Your task to perform on an android device: check android version Image 0: 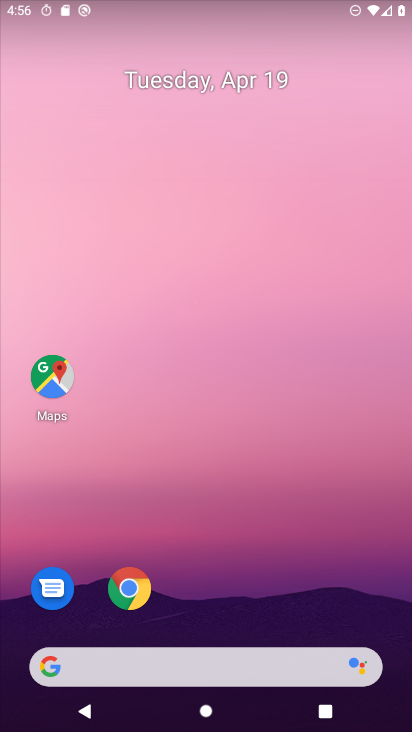
Step 0: drag from (238, 575) to (223, 88)
Your task to perform on an android device: check android version Image 1: 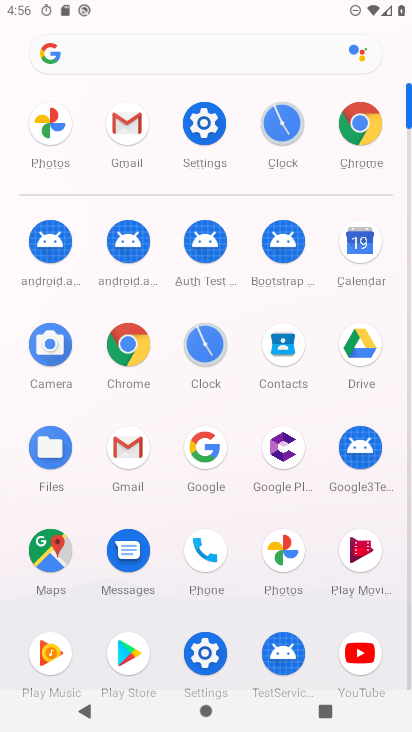
Step 1: click (202, 121)
Your task to perform on an android device: check android version Image 2: 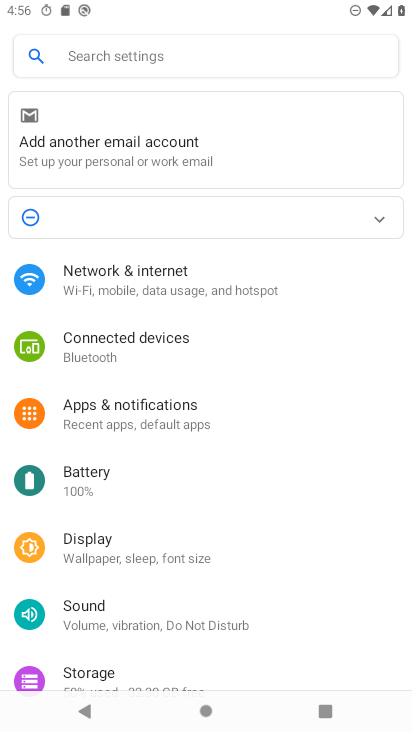
Step 2: drag from (213, 582) to (218, 254)
Your task to perform on an android device: check android version Image 3: 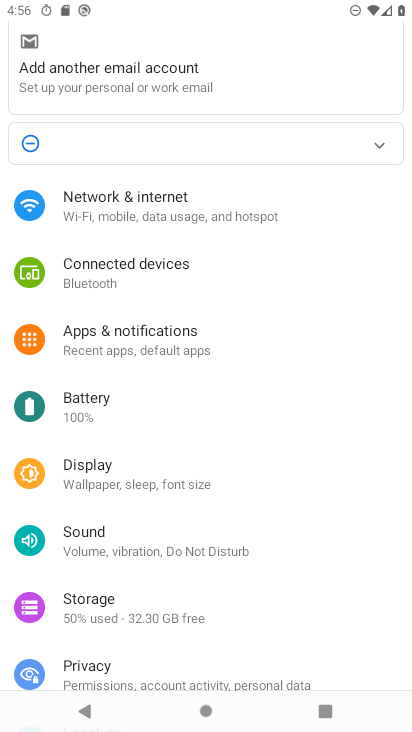
Step 3: drag from (195, 601) to (217, 191)
Your task to perform on an android device: check android version Image 4: 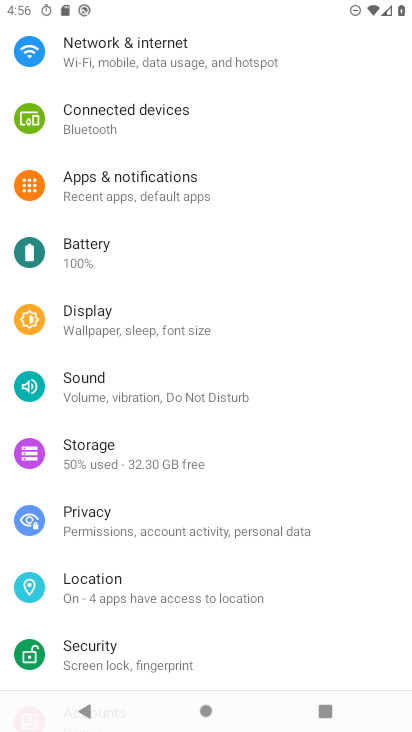
Step 4: drag from (206, 647) to (217, 191)
Your task to perform on an android device: check android version Image 5: 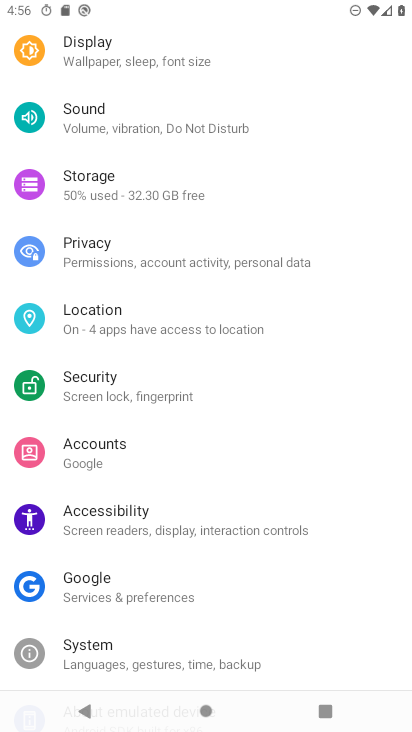
Step 5: drag from (192, 636) to (211, 254)
Your task to perform on an android device: check android version Image 6: 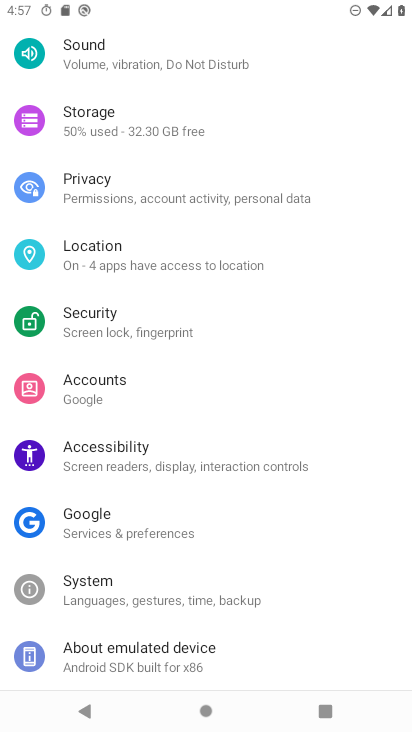
Step 6: click (183, 648)
Your task to perform on an android device: check android version Image 7: 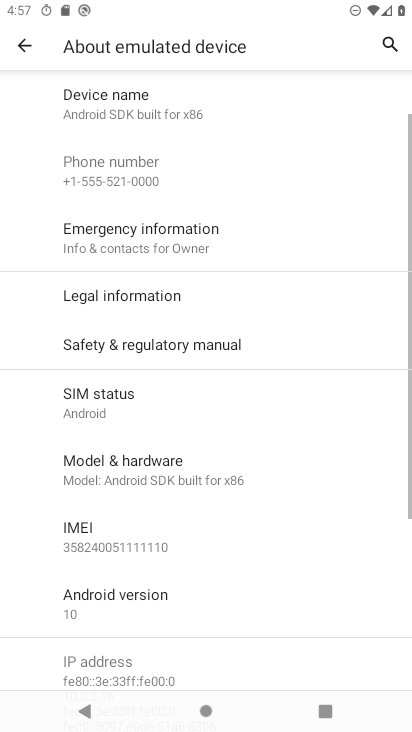
Step 7: click (187, 607)
Your task to perform on an android device: check android version Image 8: 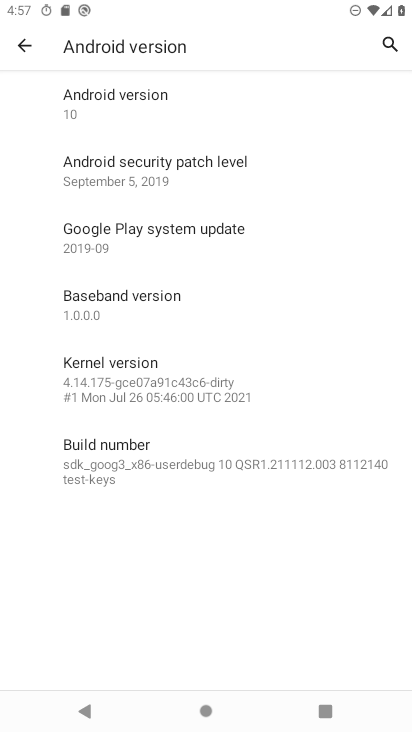
Step 8: click (212, 121)
Your task to perform on an android device: check android version Image 9: 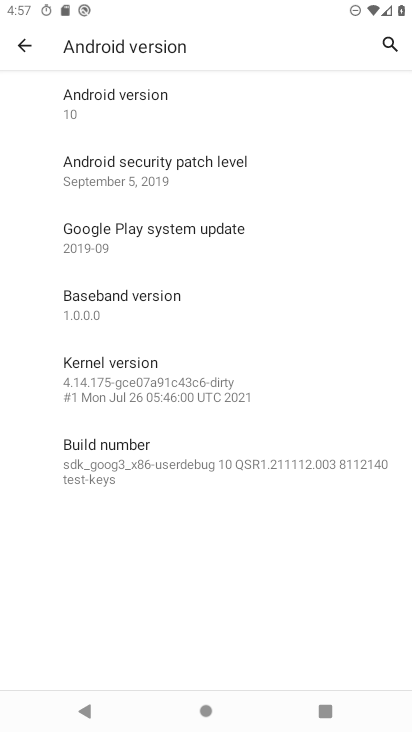
Step 9: task complete